Your task to perform on an android device: toggle javascript in the chrome app Image 0: 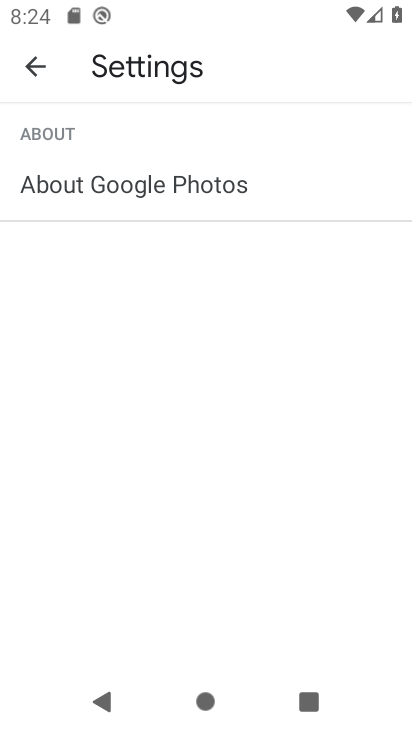
Step 0: press home button
Your task to perform on an android device: toggle javascript in the chrome app Image 1: 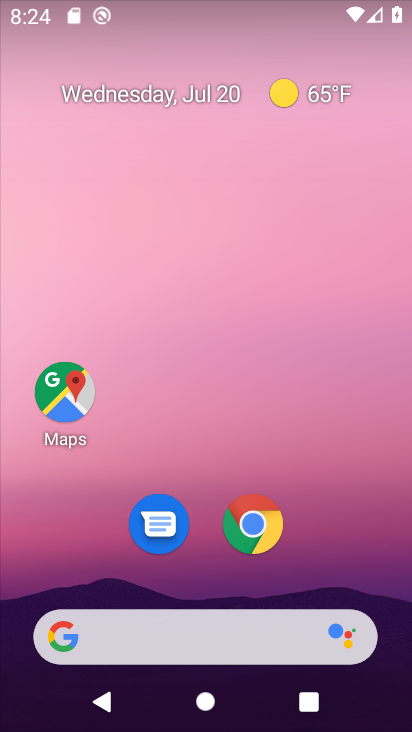
Step 1: click (261, 526)
Your task to perform on an android device: toggle javascript in the chrome app Image 2: 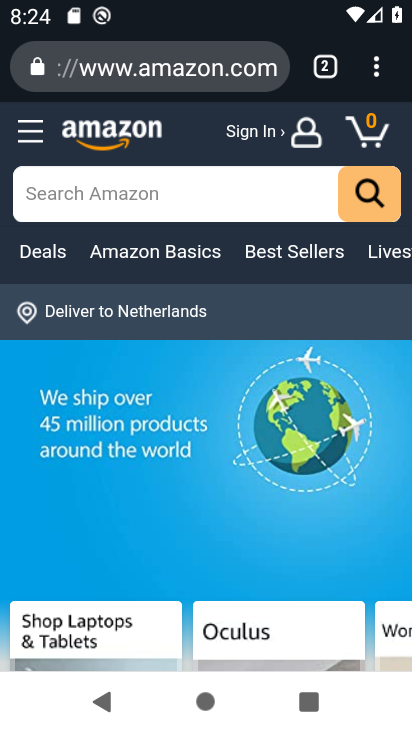
Step 2: click (374, 74)
Your task to perform on an android device: toggle javascript in the chrome app Image 3: 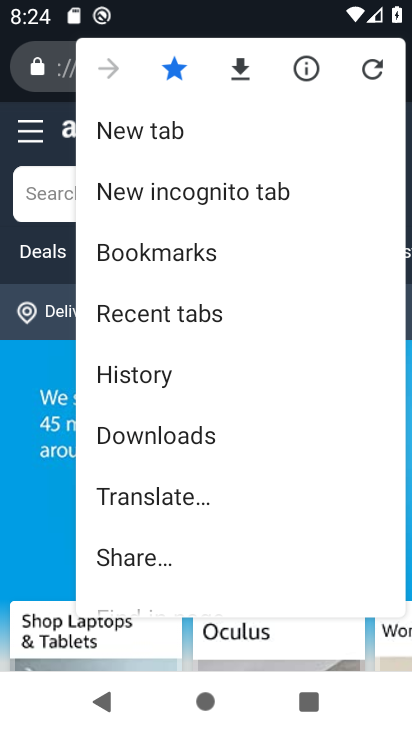
Step 3: drag from (268, 436) to (287, 245)
Your task to perform on an android device: toggle javascript in the chrome app Image 4: 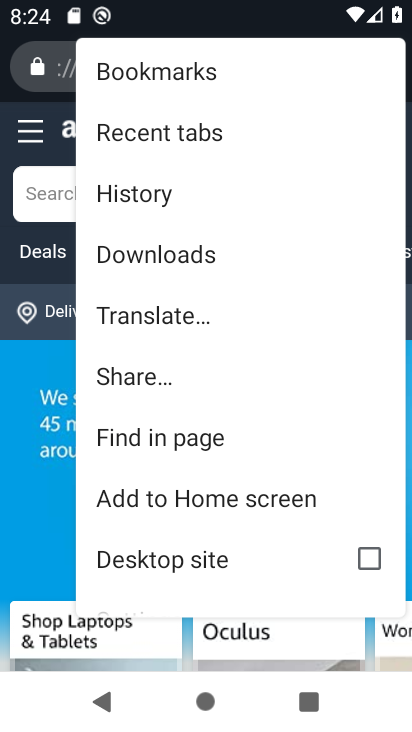
Step 4: drag from (259, 404) to (250, 174)
Your task to perform on an android device: toggle javascript in the chrome app Image 5: 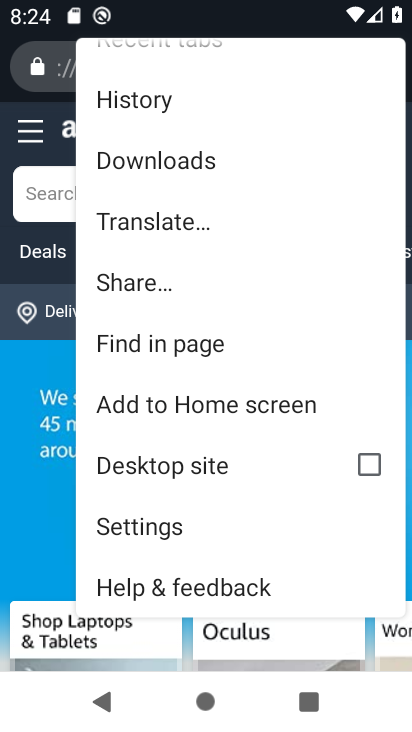
Step 5: click (162, 517)
Your task to perform on an android device: toggle javascript in the chrome app Image 6: 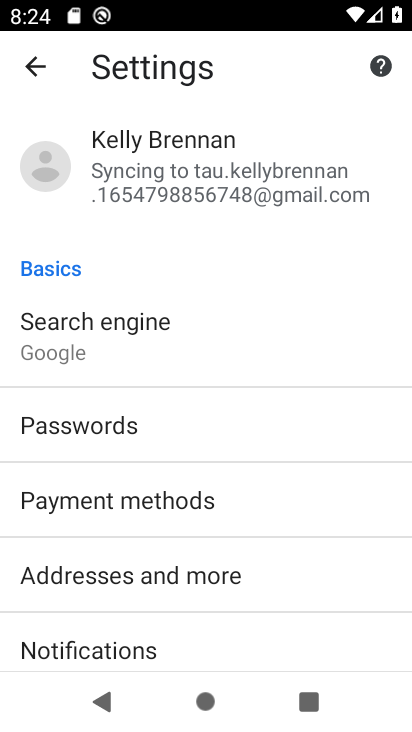
Step 6: drag from (212, 611) to (246, 271)
Your task to perform on an android device: toggle javascript in the chrome app Image 7: 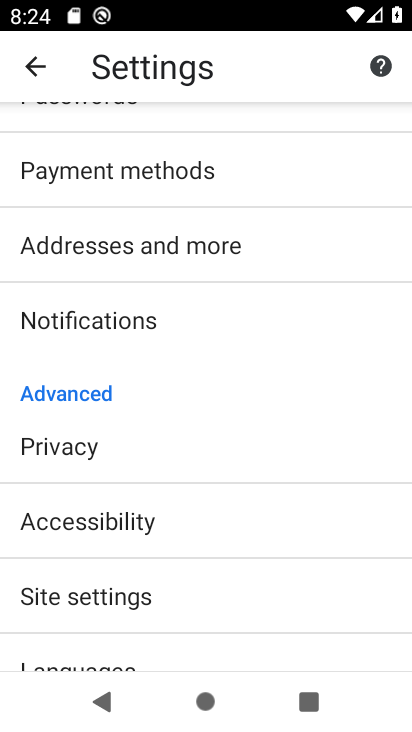
Step 7: click (144, 594)
Your task to perform on an android device: toggle javascript in the chrome app Image 8: 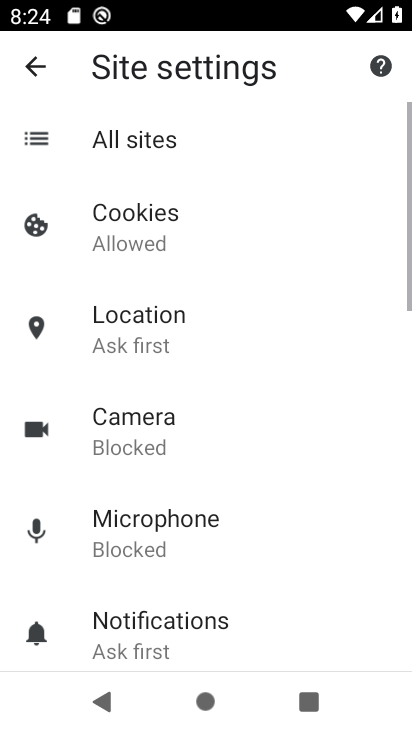
Step 8: drag from (216, 555) to (233, 283)
Your task to perform on an android device: toggle javascript in the chrome app Image 9: 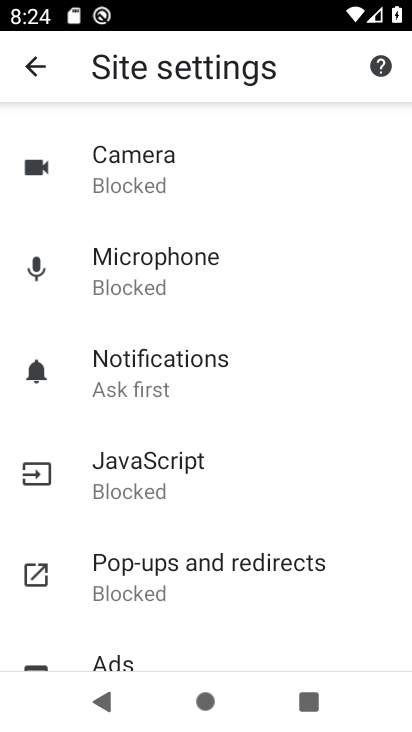
Step 9: click (192, 465)
Your task to perform on an android device: toggle javascript in the chrome app Image 10: 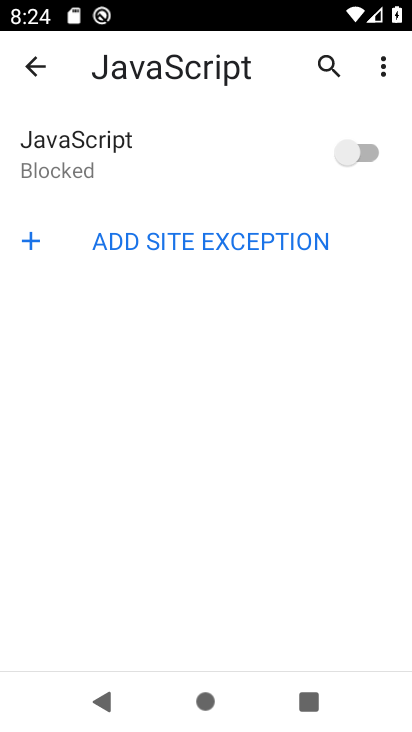
Step 10: click (366, 143)
Your task to perform on an android device: toggle javascript in the chrome app Image 11: 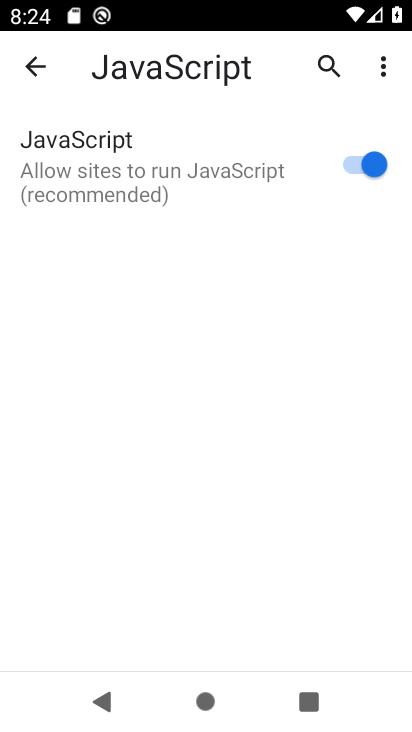
Step 11: task complete